Your task to perform on an android device: Open the calendar app, open the side menu, and click the "Day" option Image 0: 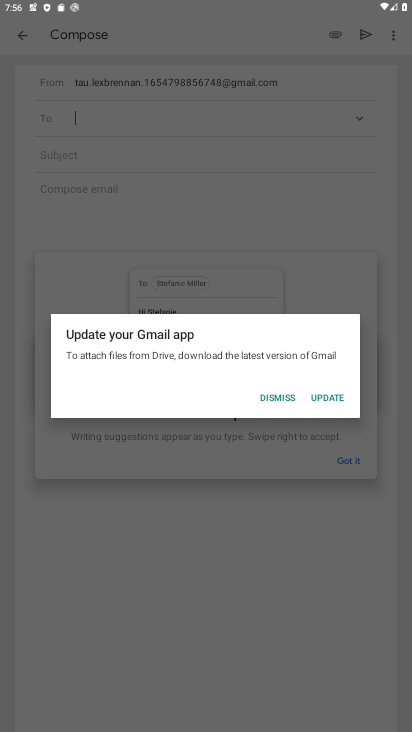
Step 0: press home button
Your task to perform on an android device: Open the calendar app, open the side menu, and click the "Day" option Image 1: 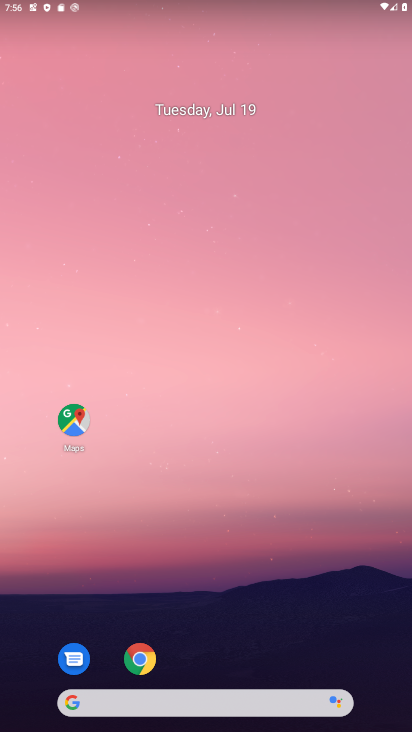
Step 1: drag from (172, 684) to (173, 194)
Your task to perform on an android device: Open the calendar app, open the side menu, and click the "Day" option Image 2: 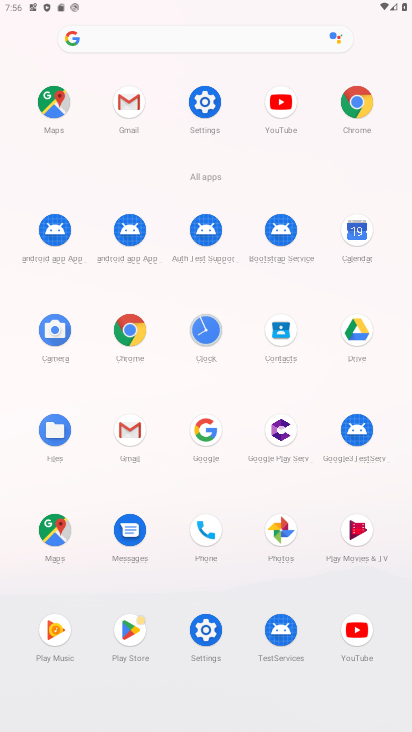
Step 2: click (348, 232)
Your task to perform on an android device: Open the calendar app, open the side menu, and click the "Day" option Image 3: 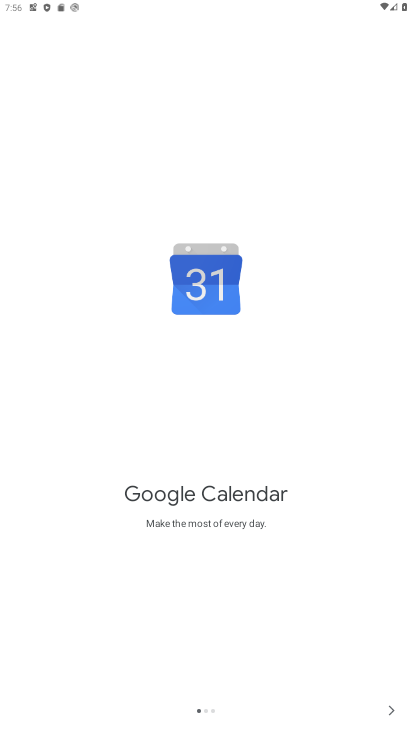
Step 3: click (387, 707)
Your task to perform on an android device: Open the calendar app, open the side menu, and click the "Day" option Image 4: 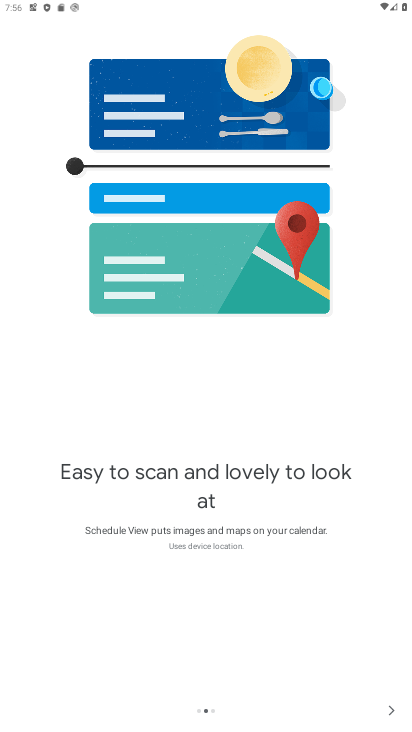
Step 4: click (387, 707)
Your task to perform on an android device: Open the calendar app, open the side menu, and click the "Day" option Image 5: 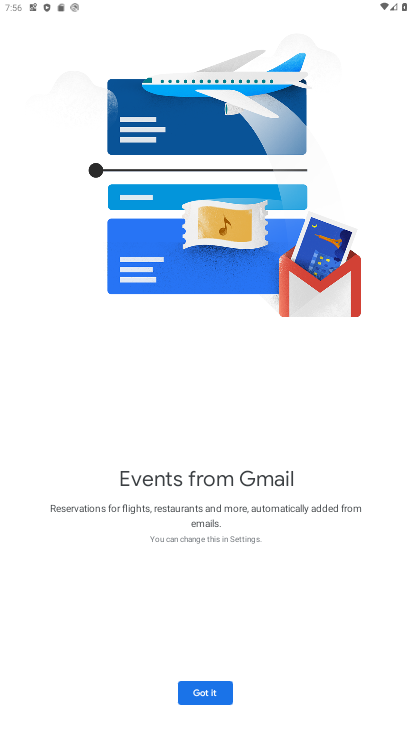
Step 5: click (217, 693)
Your task to perform on an android device: Open the calendar app, open the side menu, and click the "Day" option Image 6: 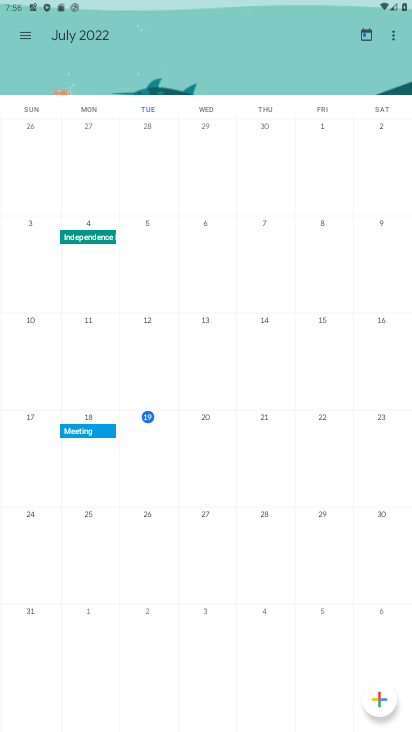
Step 6: click (26, 34)
Your task to perform on an android device: Open the calendar app, open the side menu, and click the "Day" option Image 7: 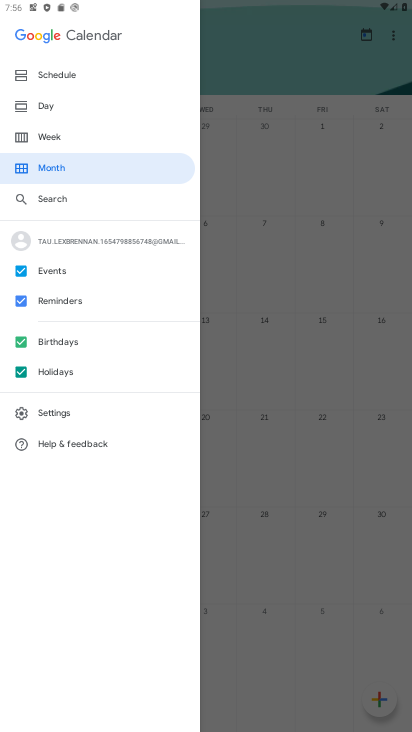
Step 7: click (50, 101)
Your task to perform on an android device: Open the calendar app, open the side menu, and click the "Day" option Image 8: 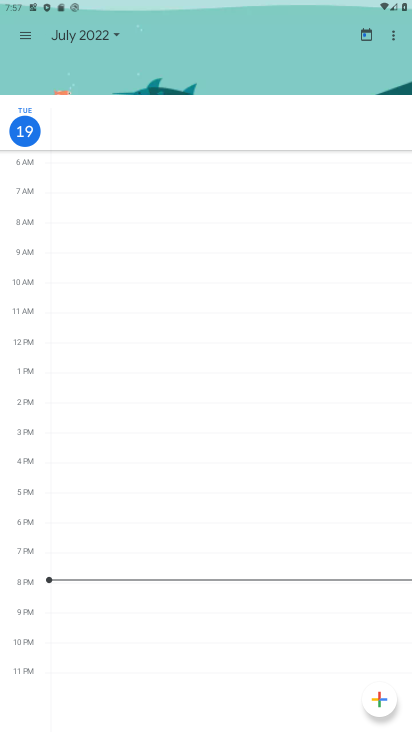
Step 8: task complete